Your task to perform on an android device: View the shopping cart on target. Search for logitech g pro on target, select the first entry, add it to the cart, then select checkout. Image 0: 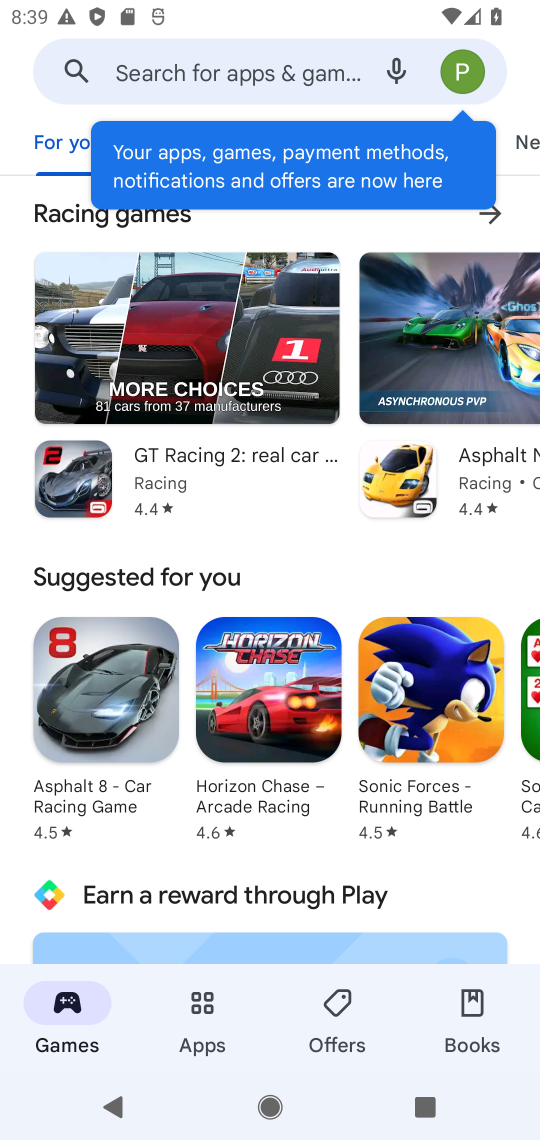
Step 0: press home button
Your task to perform on an android device: View the shopping cart on target. Search for logitech g pro on target, select the first entry, add it to the cart, then select checkout. Image 1: 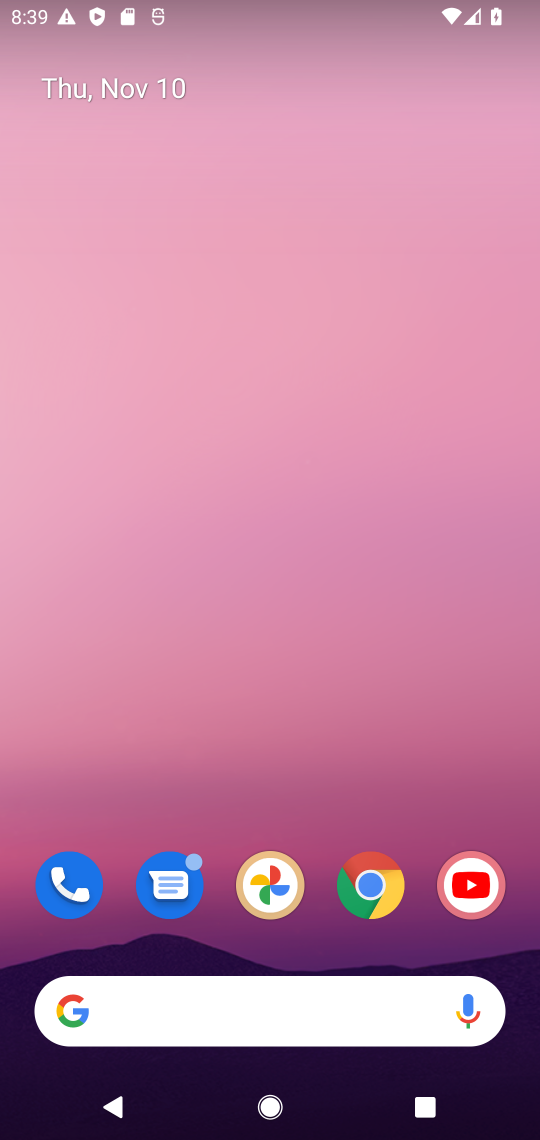
Step 1: click (373, 879)
Your task to perform on an android device: View the shopping cart on target. Search for logitech g pro on target, select the first entry, add it to the cart, then select checkout. Image 2: 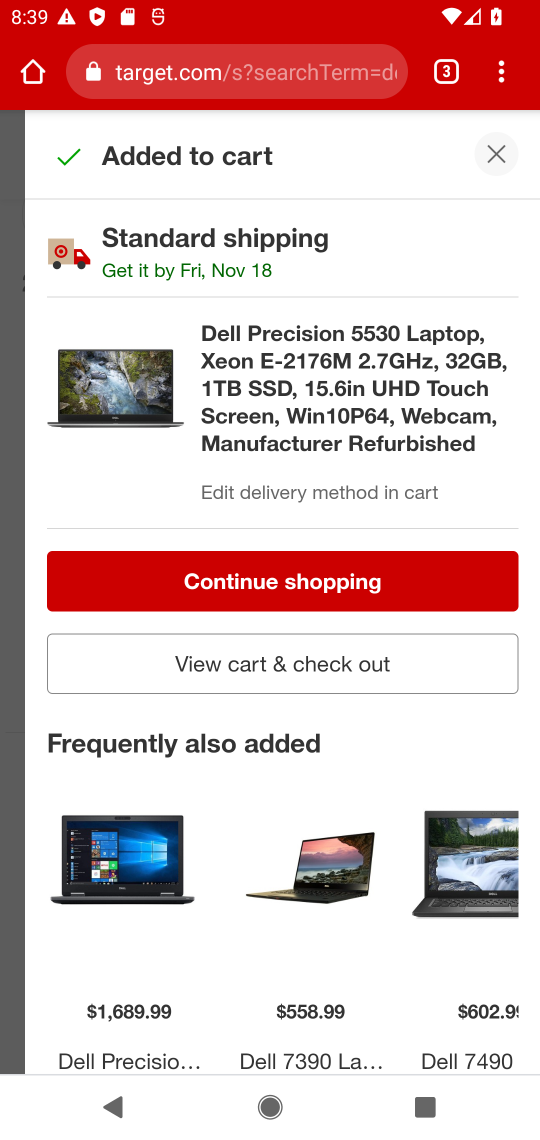
Step 2: click (500, 153)
Your task to perform on an android device: View the shopping cart on target. Search for logitech g pro on target, select the first entry, add it to the cart, then select checkout. Image 3: 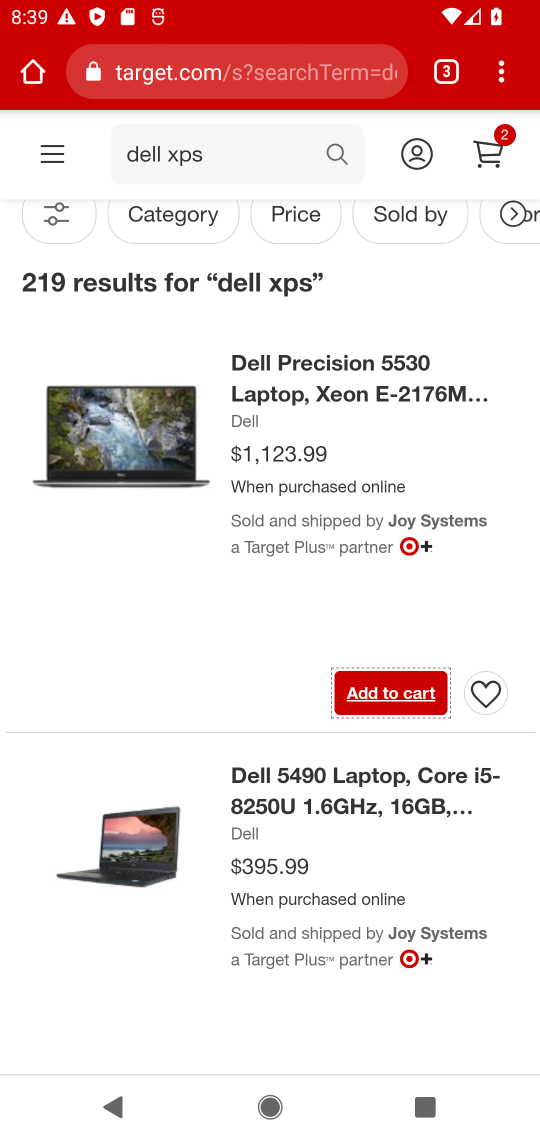
Step 3: click (187, 151)
Your task to perform on an android device: View the shopping cart on target. Search for logitech g pro on target, select the first entry, add it to the cart, then select checkout. Image 4: 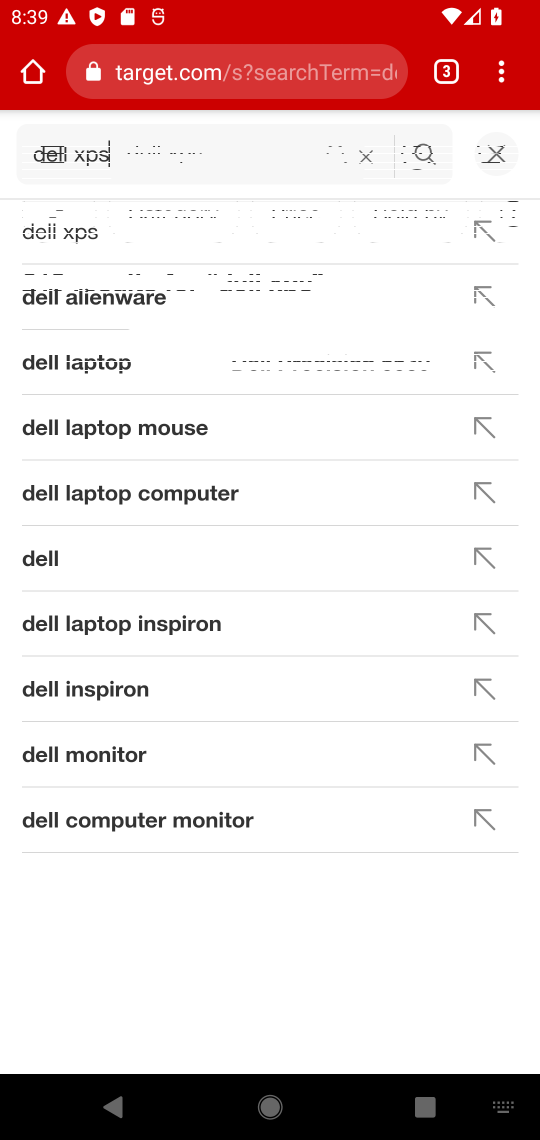
Step 4: click (498, 159)
Your task to perform on an android device: View the shopping cart on target. Search for logitech g pro on target, select the first entry, add it to the cart, then select checkout. Image 5: 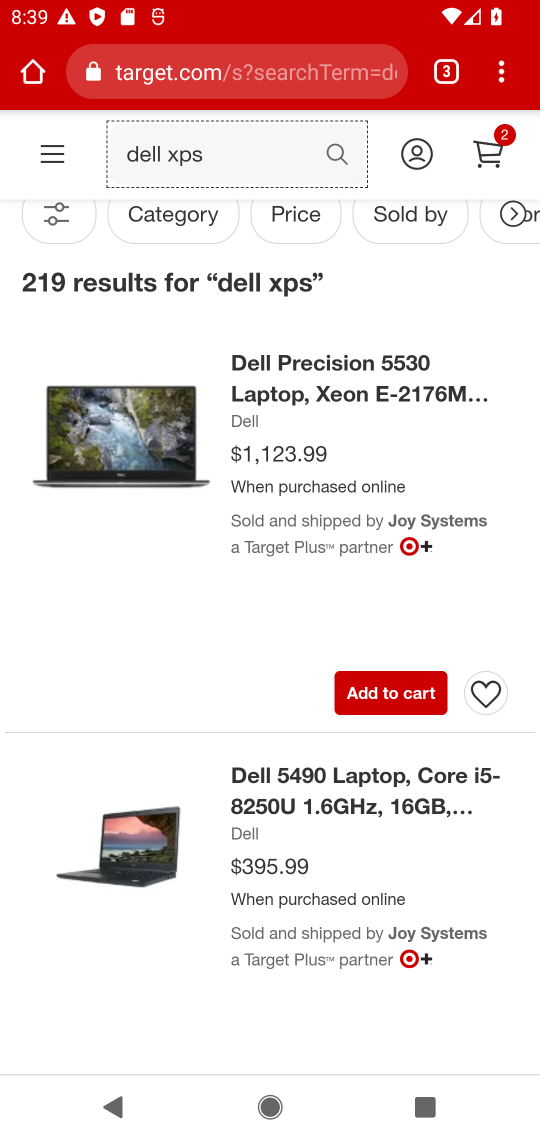
Step 5: click (218, 181)
Your task to perform on an android device: View the shopping cart on target. Search for logitech g pro on target, select the first entry, add it to the cart, then select checkout. Image 6: 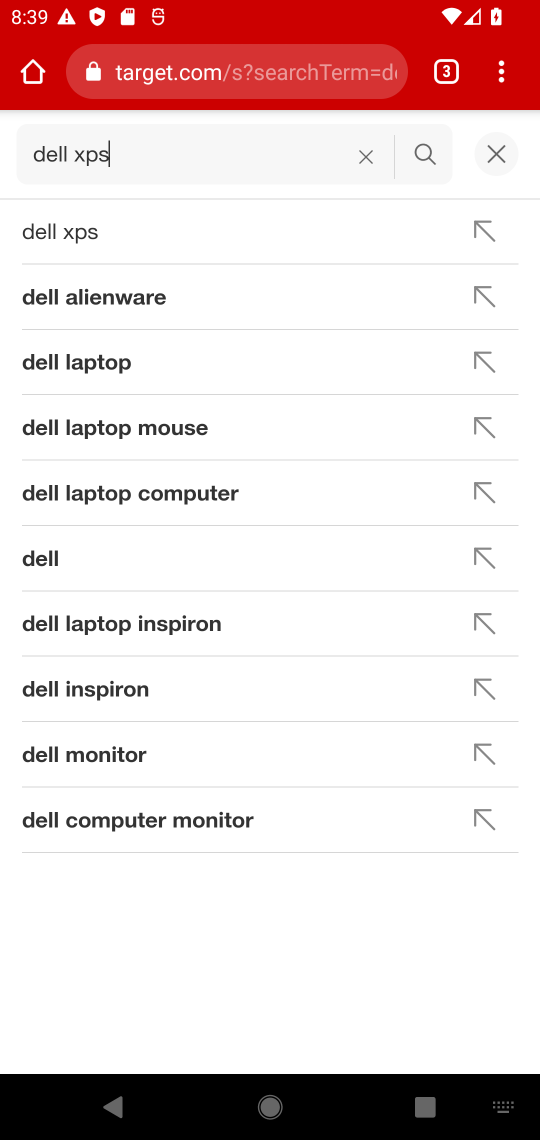
Step 6: click (360, 156)
Your task to perform on an android device: View the shopping cart on target. Search for logitech g pro on target, select the first entry, add it to the cart, then select checkout. Image 7: 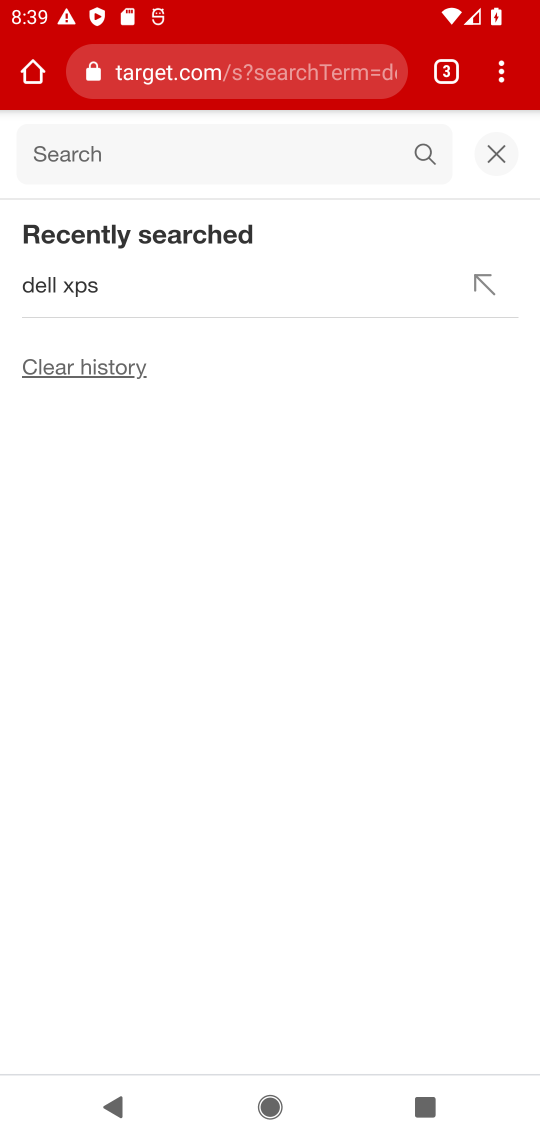
Step 7: type " logitech g pro"
Your task to perform on an android device: View the shopping cart on target. Search for logitech g pro on target, select the first entry, add it to the cart, then select checkout. Image 8: 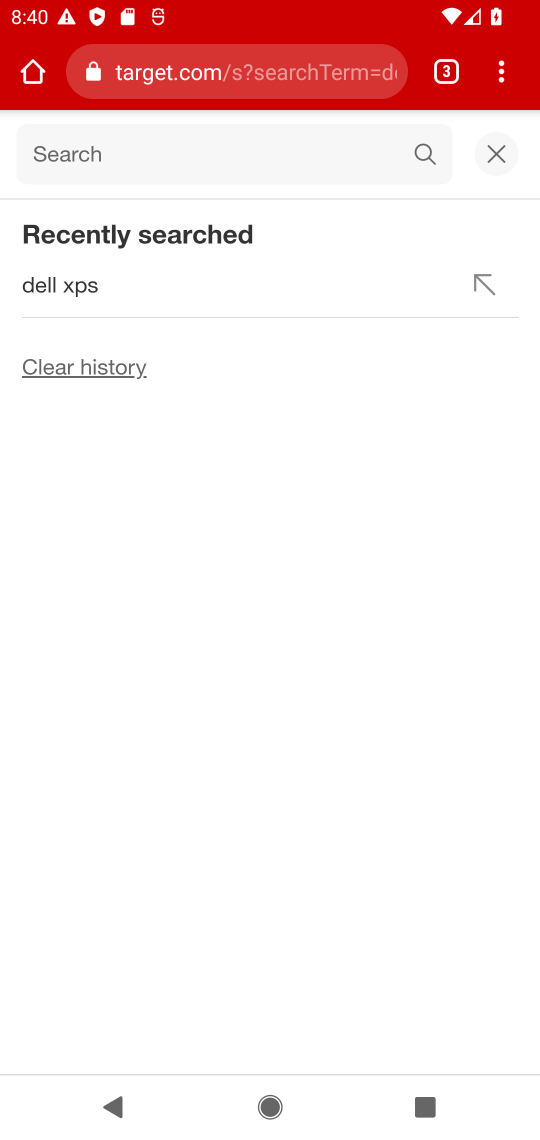
Step 8: click (82, 160)
Your task to perform on an android device: View the shopping cart on target. Search for logitech g pro on target, select the first entry, add it to the cart, then select checkout. Image 9: 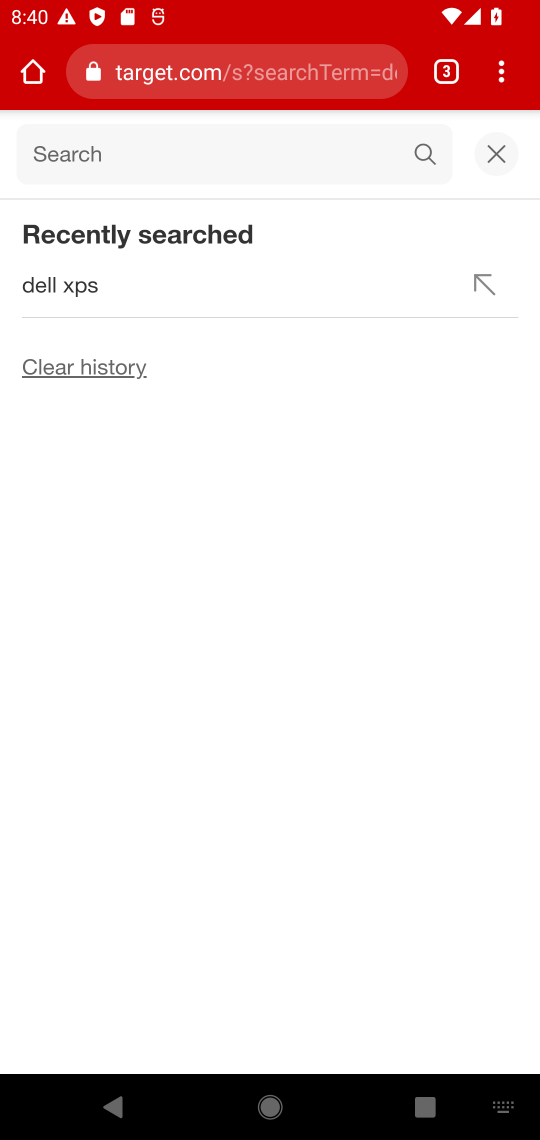
Step 9: type " logitech g pro"
Your task to perform on an android device: View the shopping cart on target. Search for logitech g pro on target, select the first entry, add it to the cart, then select checkout. Image 10: 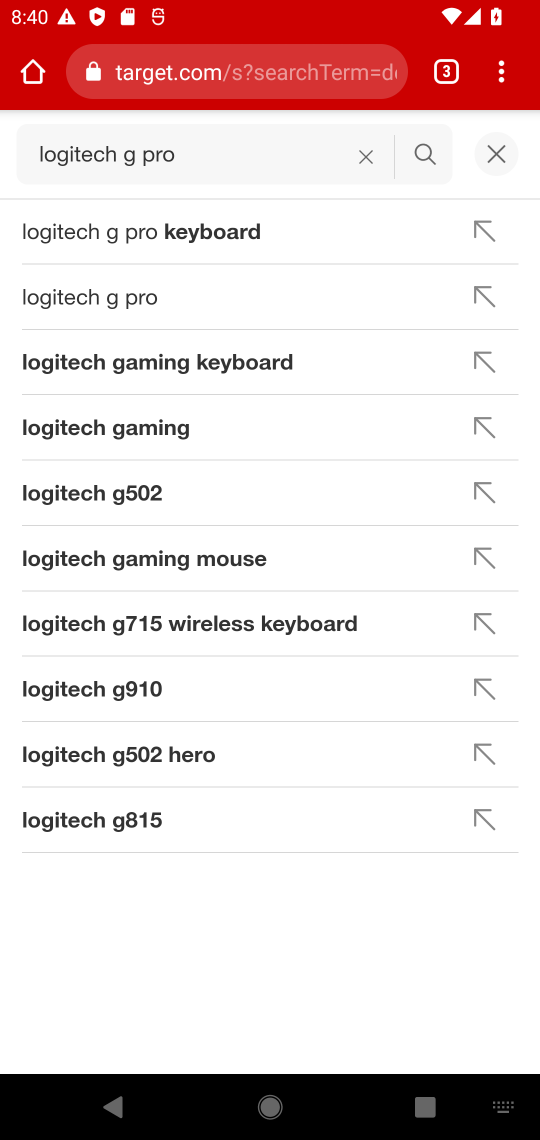
Step 10: click (147, 228)
Your task to perform on an android device: View the shopping cart on target. Search for logitech g pro on target, select the first entry, add it to the cart, then select checkout. Image 11: 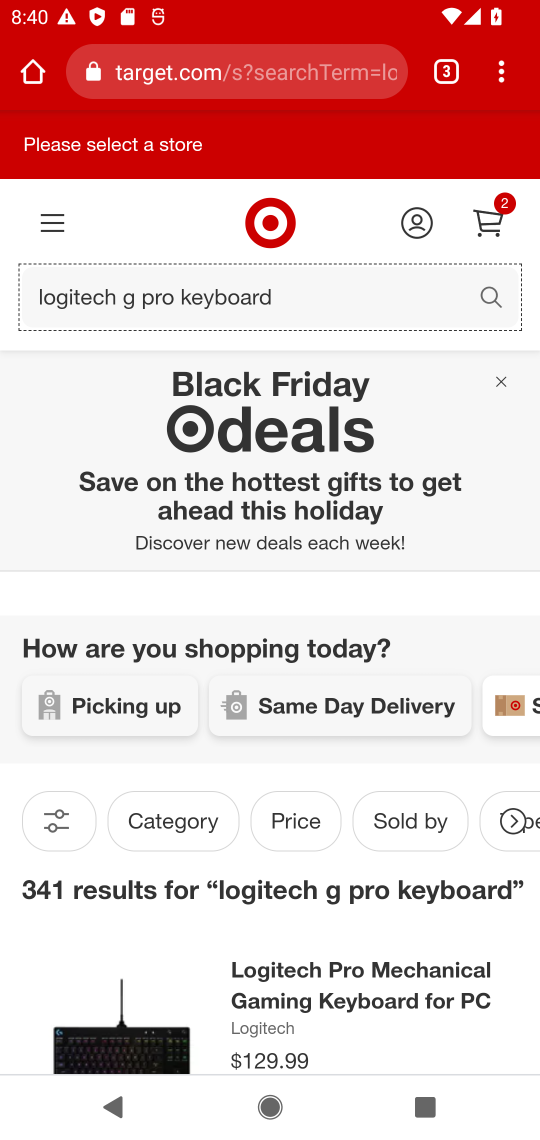
Step 11: drag from (392, 1033) to (493, 289)
Your task to perform on an android device: View the shopping cart on target. Search for logitech g pro on target, select the first entry, add it to the cart, then select checkout. Image 12: 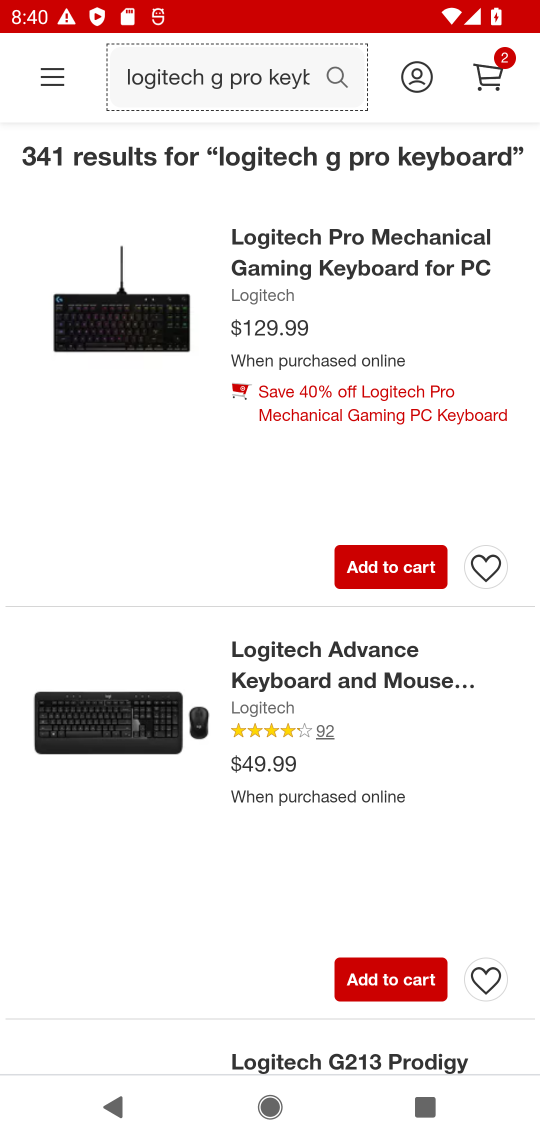
Step 12: click (364, 564)
Your task to perform on an android device: View the shopping cart on target. Search for logitech g pro on target, select the first entry, add it to the cart, then select checkout. Image 13: 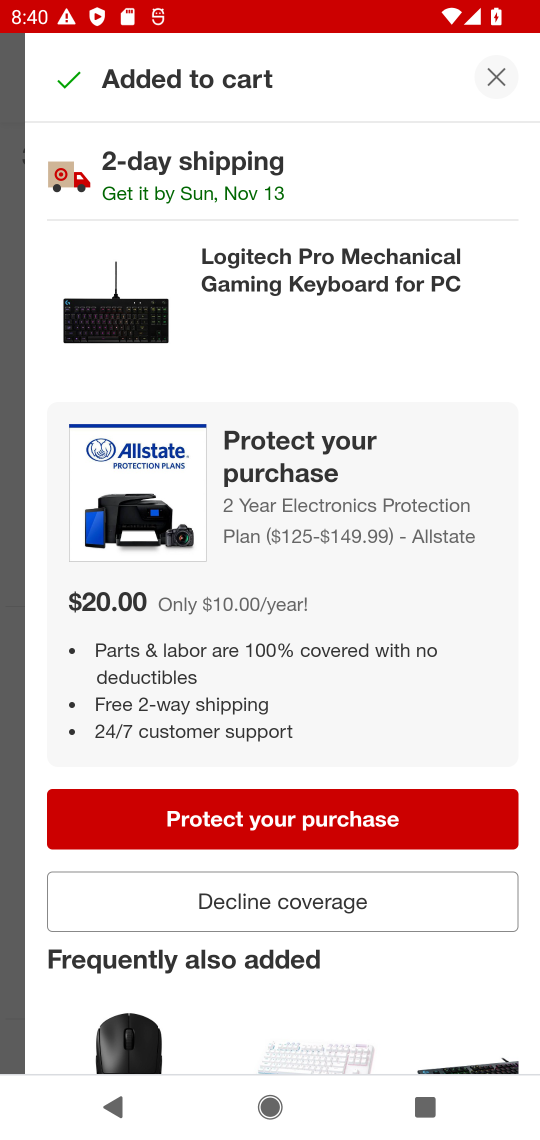
Step 13: task complete